Your task to perform on an android device: Open privacy settings Image 0: 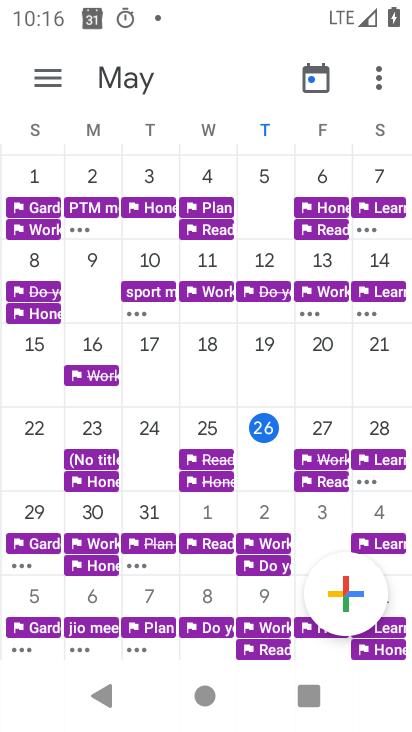
Step 0: press home button
Your task to perform on an android device: Open privacy settings Image 1: 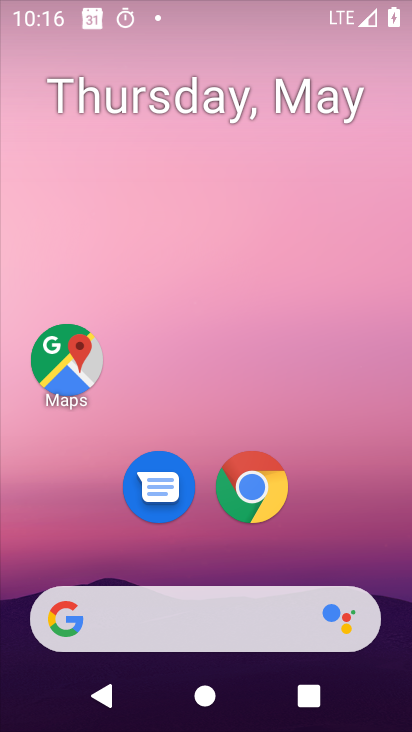
Step 1: drag from (230, 703) to (264, 152)
Your task to perform on an android device: Open privacy settings Image 2: 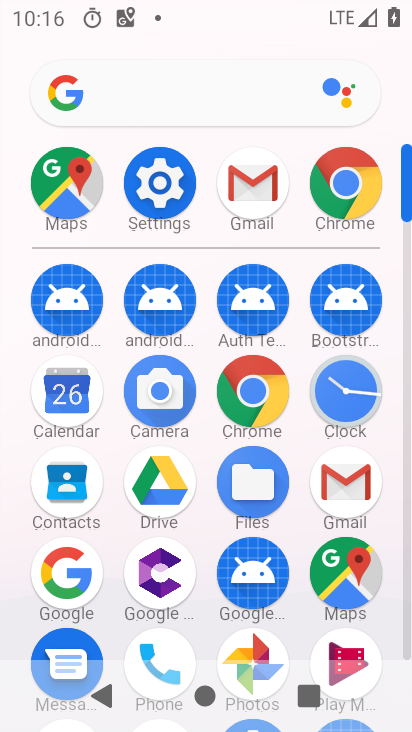
Step 2: click (159, 190)
Your task to perform on an android device: Open privacy settings Image 3: 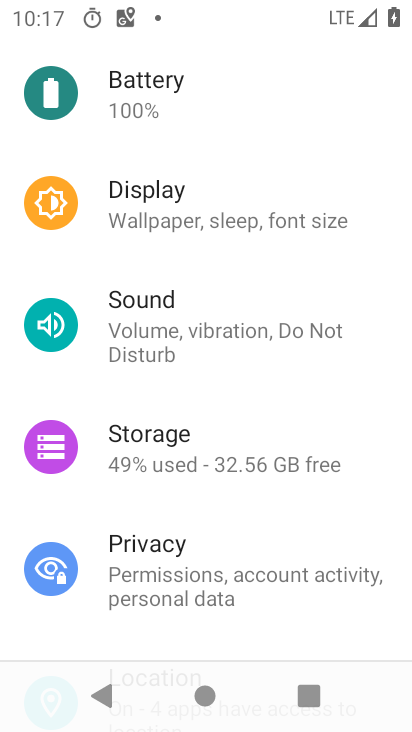
Step 3: drag from (191, 491) to (193, 260)
Your task to perform on an android device: Open privacy settings Image 4: 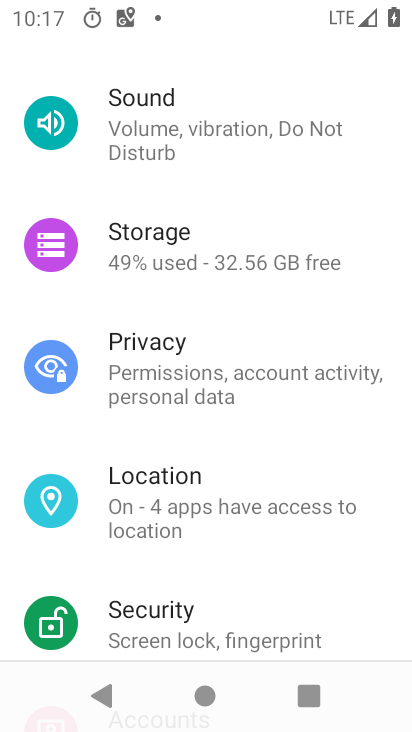
Step 4: drag from (179, 543) to (182, 229)
Your task to perform on an android device: Open privacy settings Image 5: 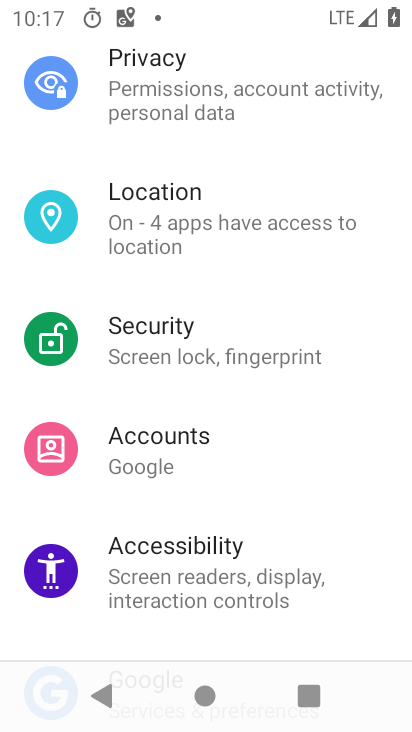
Step 5: drag from (166, 503) to (190, 113)
Your task to perform on an android device: Open privacy settings Image 6: 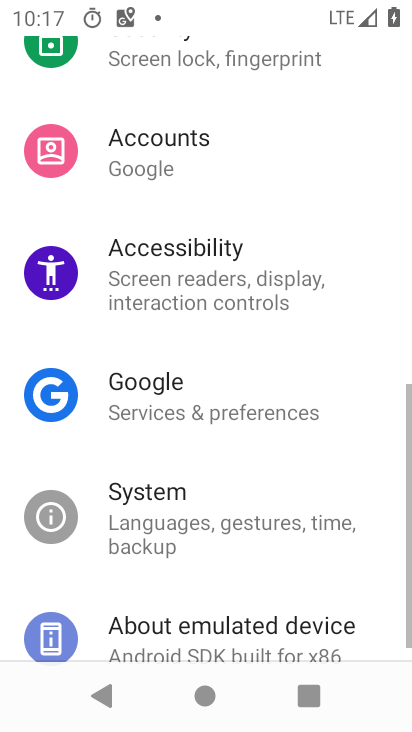
Step 6: drag from (186, 292) to (152, 728)
Your task to perform on an android device: Open privacy settings Image 7: 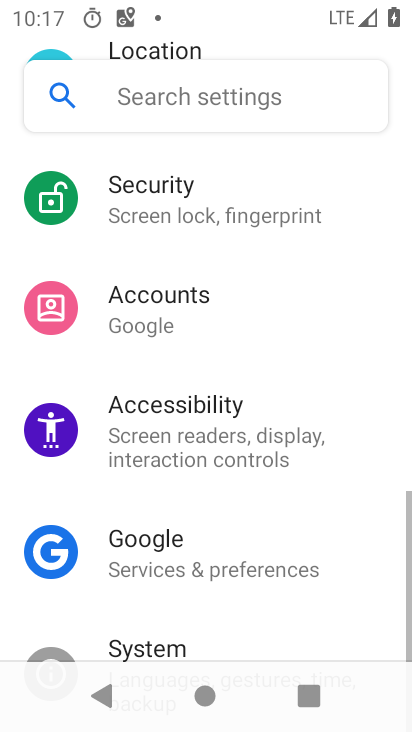
Step 7: drag from (212, 327) to (178, 731)
Your task to perform on an android device: Open privacy settings Image 8: 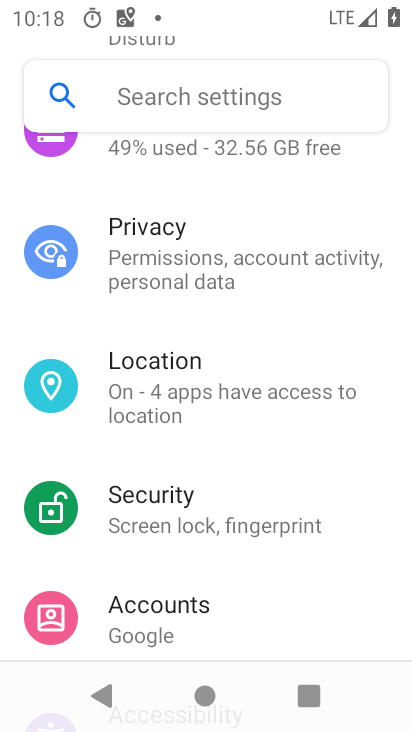
Step 8: click (215, 260)
Your task to perform on an android device: Open privacy settings Image 9: 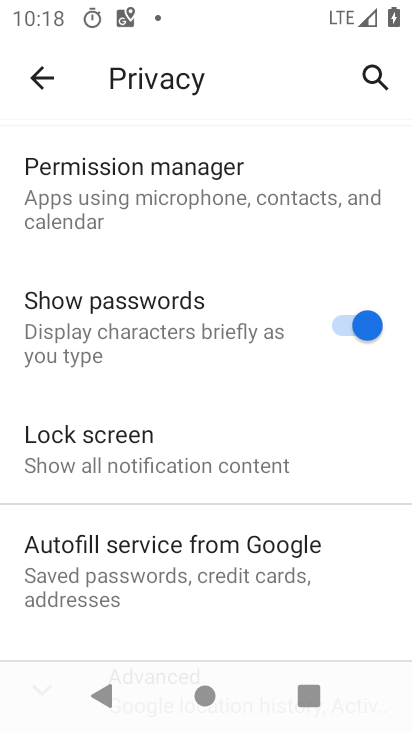
Step 9: task complete